Your task to perform on an android device: Go to eBay Image 0: 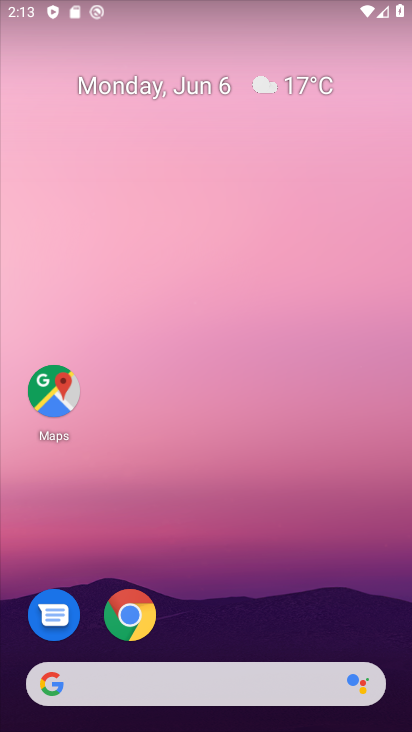
Step 0: click (136, 618)
Your task to perform on an android device: Go to eBay Image 1: 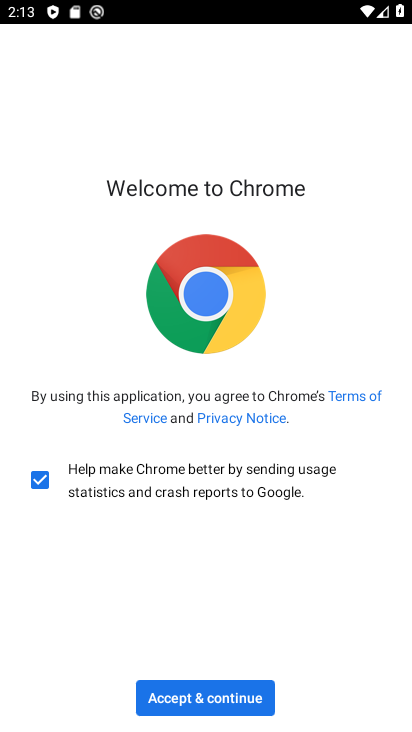
Step 1: click (238, 700)
Your task to perform on an android device: Go to eBay Image 2: 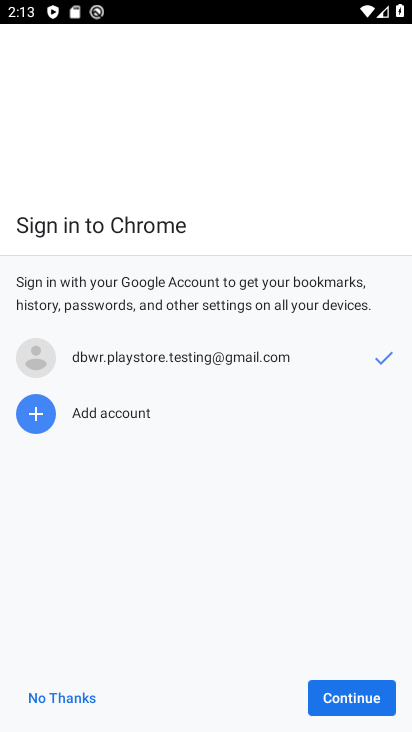
Step 2: click (372, 692)
Your task to perform on an android device: Go to eBay Image 3: 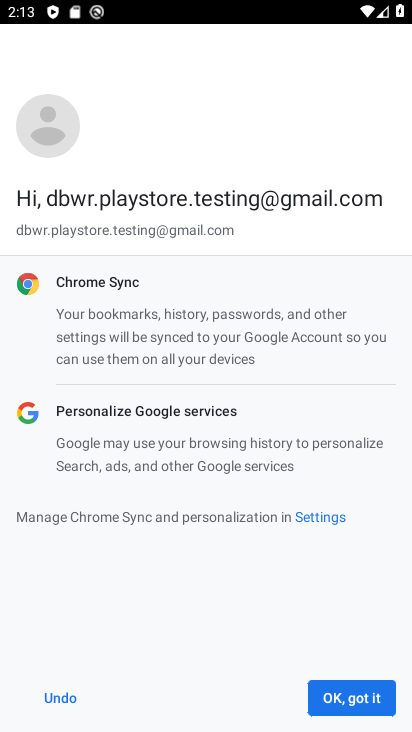
Step 3: click (364, 708)
Your task to perform on an android device: Go to eBay Image 4: 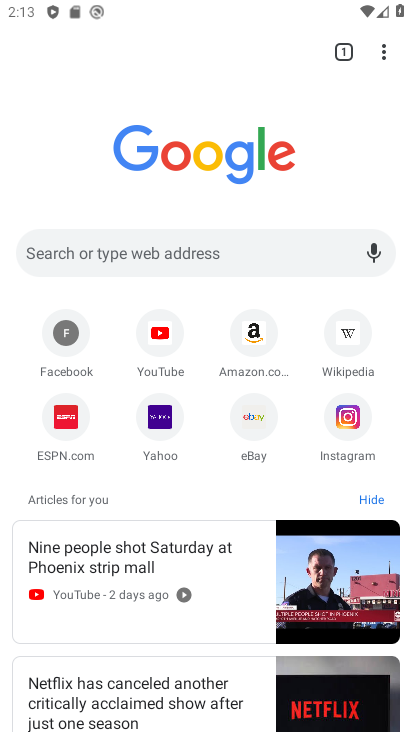
Step 4: click (262, 429)
Your task to perform on an android device: Go to eBay Image 5: 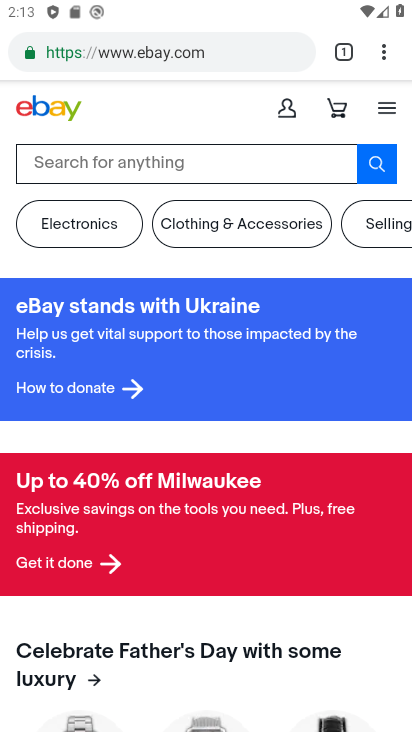
Step 5: task complete